Your task to perform on an android device: Open the Play Movies app and select the watchlist tab. Image 0: 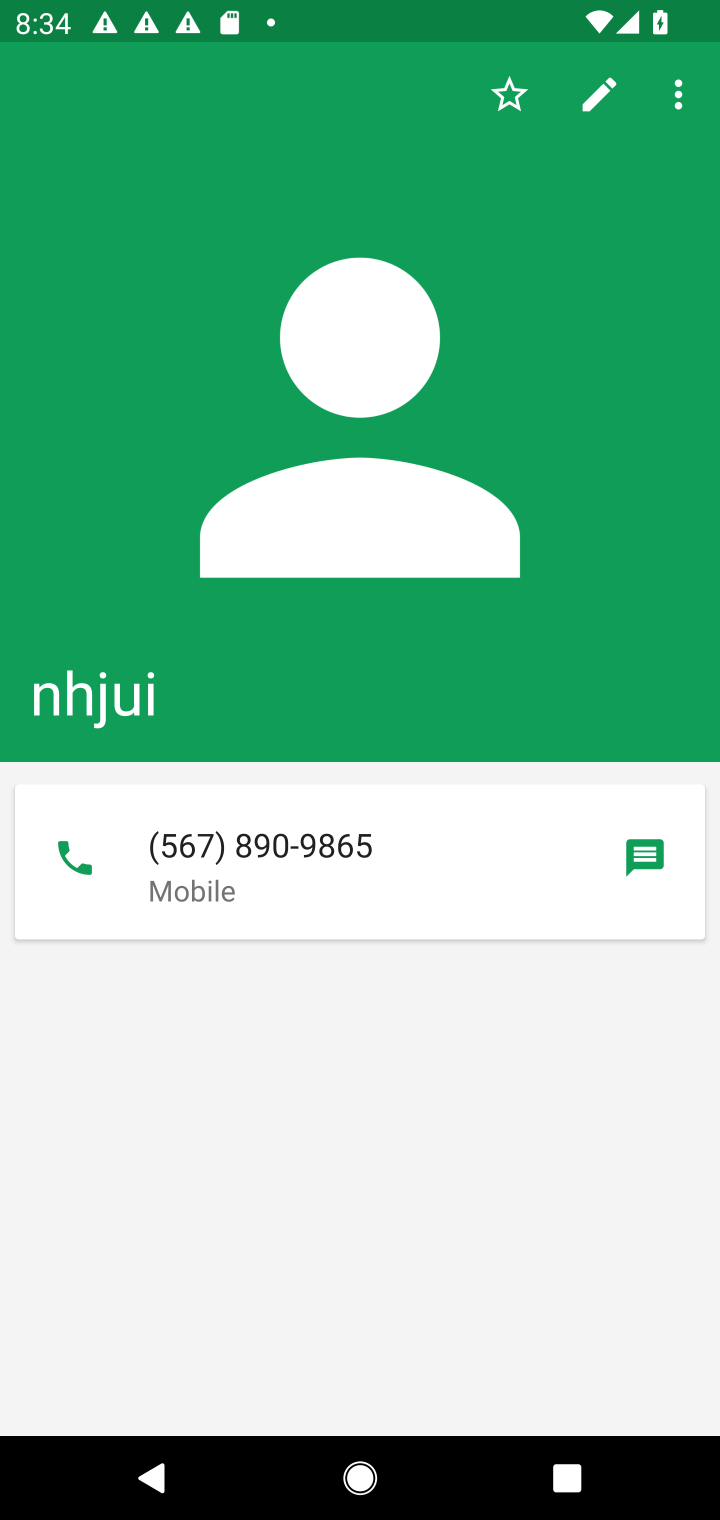
Step 0: press home button
Your task to perform on an android device: Open the Play Movies app and select the watchlist tab. Image 1: 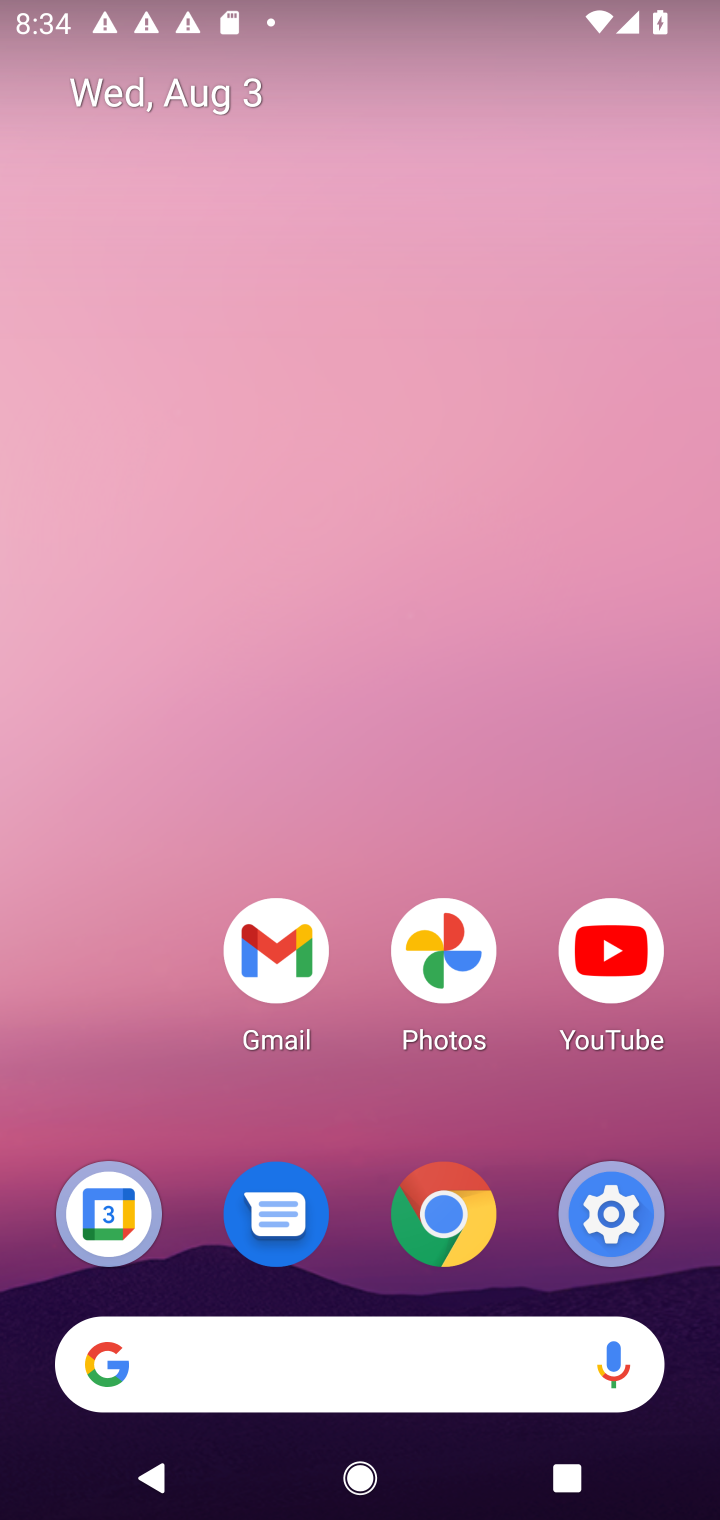
Step 1: task complete